Your task to perform on an android device: Open Reddit.com Image 0: 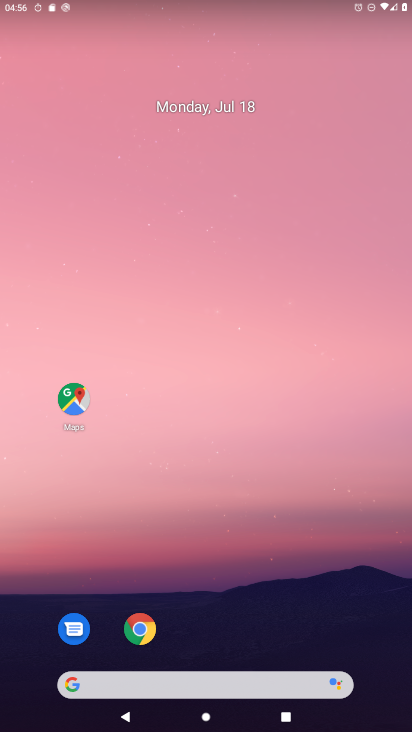
Step 0: click (141, 628)
Your task to perform on an android device: Open Reddit.com Image 1: 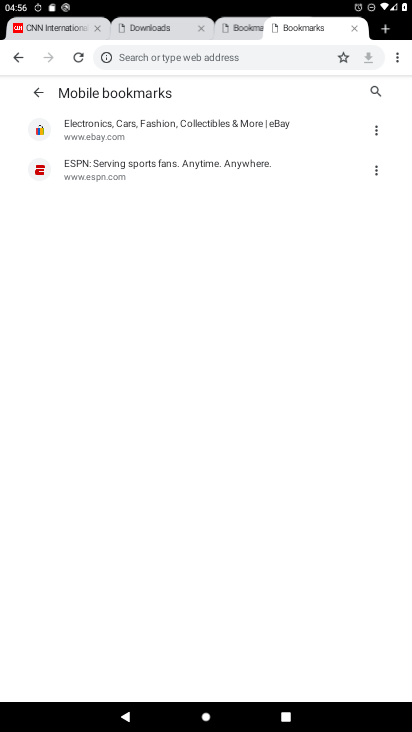
Step 1: click (271, 56)
Your task to perform on an android device: Open Reddit.com Image 2: 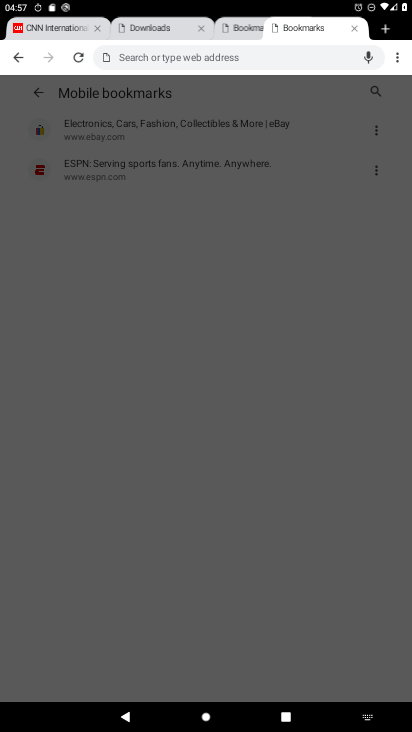
Step 2: type "Reddit.com"
Your task to perform on an android device: Open Reddit.com Image 3: 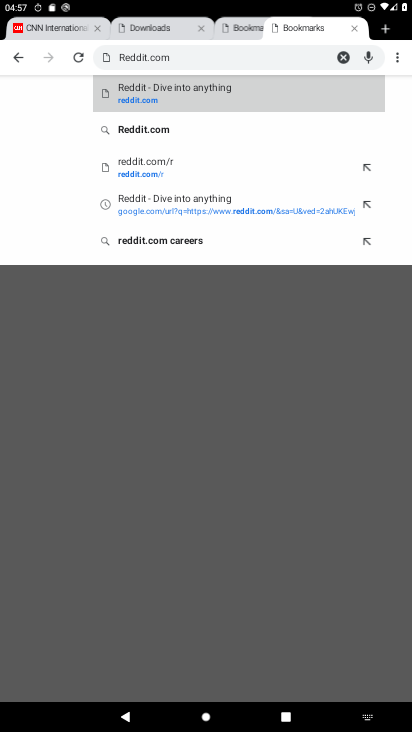
Step 3: click (146, 135)
Your task to perform on an android device: Open Reddit.com Image 4: 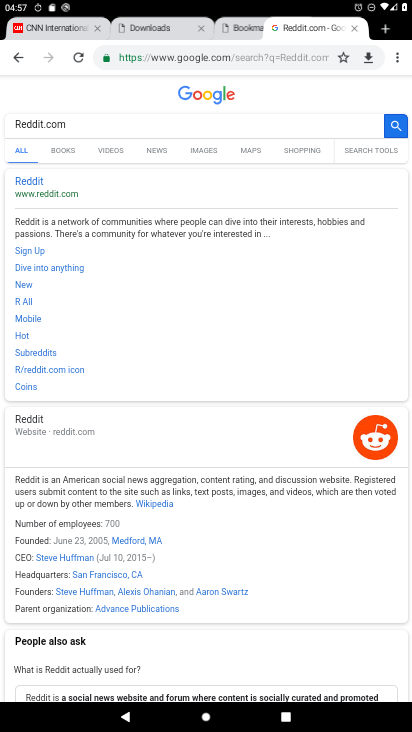
Step 4: click (49, 200)
Your task to perform on an android device: Open Reddit.com Image 5: 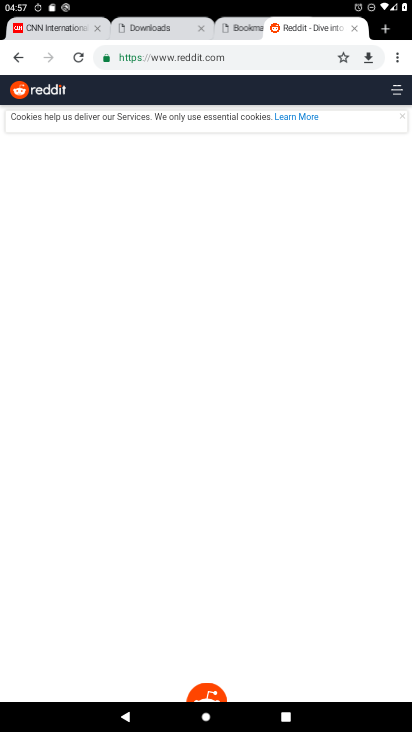
Step 5: task complete